Your task to perform on an android device: Show the shopping cart on walmart.com. Image 0: 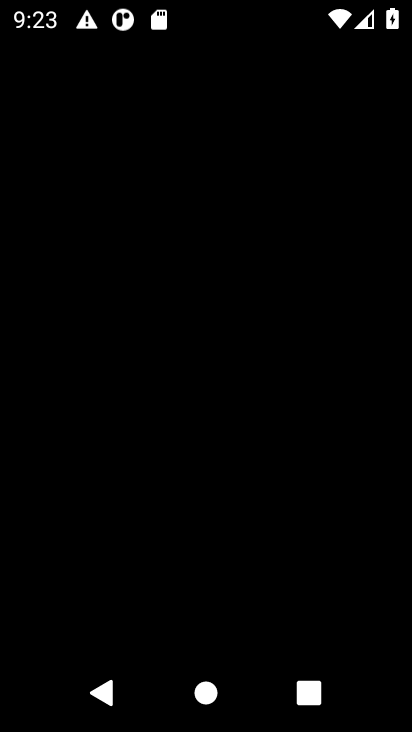
Step 0: press home button
Your task to perform on an android device: Show the shopping cart on walmart.com. Image 1: 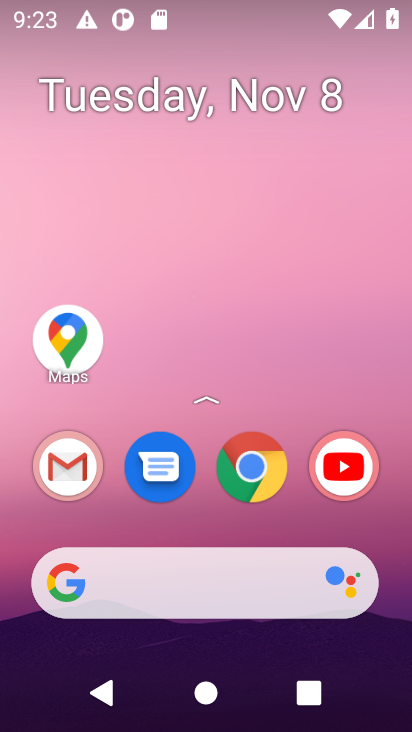
Step 1: click (192, 595)
Your task to perform on an android device: Show the shopping cart on walmart.com. Image 2: 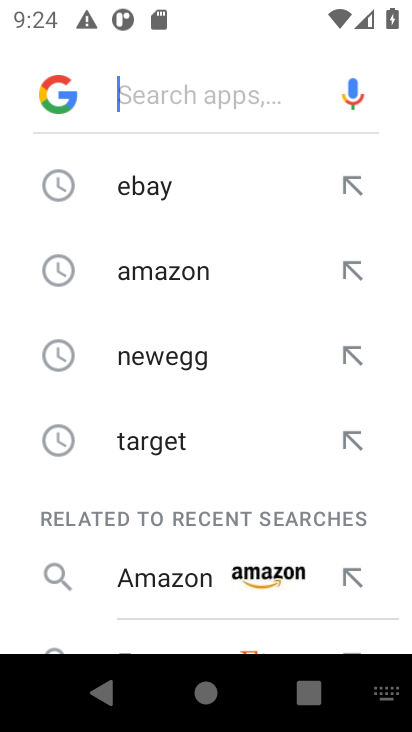
Step 2: type "wal,mart"
Your task to perform on an android device: Show the shopping cart on walmart.com. Image 3: 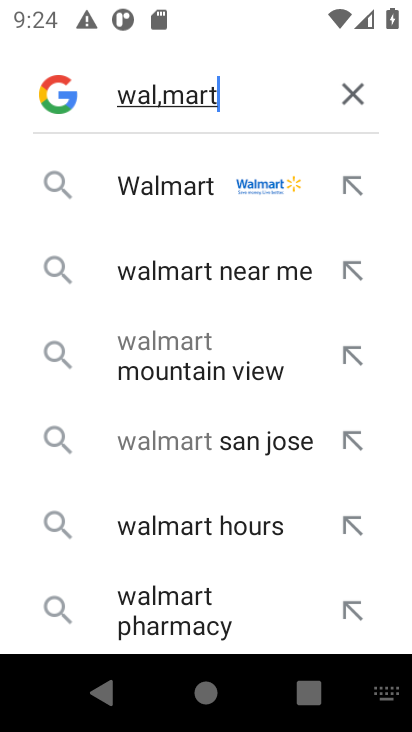
Step 3: click (175, 177)
Your task to perform on an android device: Show the shopping cart on walmart.com. Image 4: 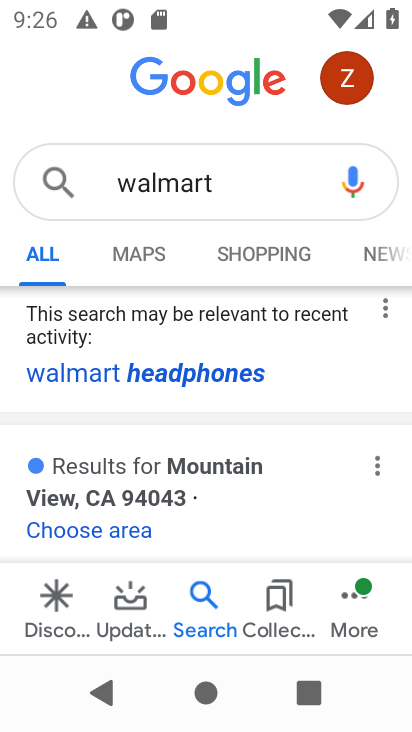
Step 4: task complete